Your task to perform on an android device: Go to internet settings Image 0: 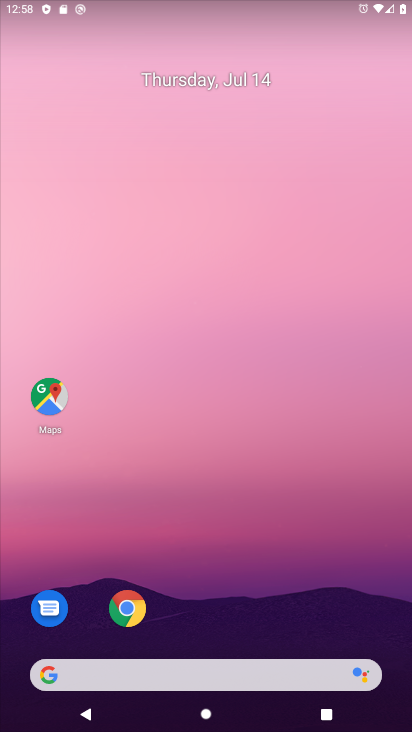
Step 0: drag from (348, 550) to (356, 106)
Your task to perform on an android device: Go to internet settings Image 1: 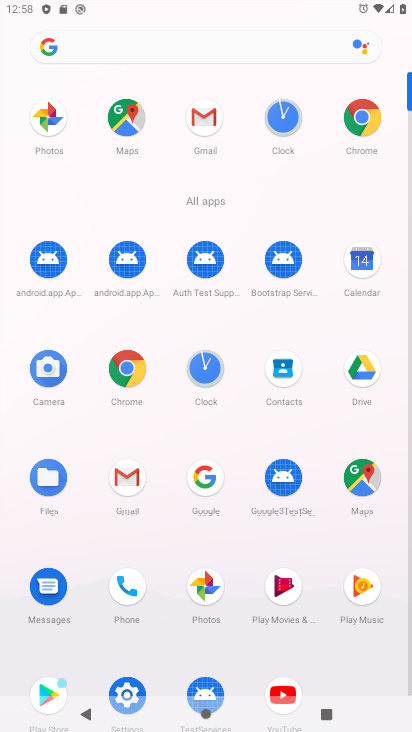
Step 1: click (127, 689)
Your task to perform on an android device: Go to internet settings Image 2: 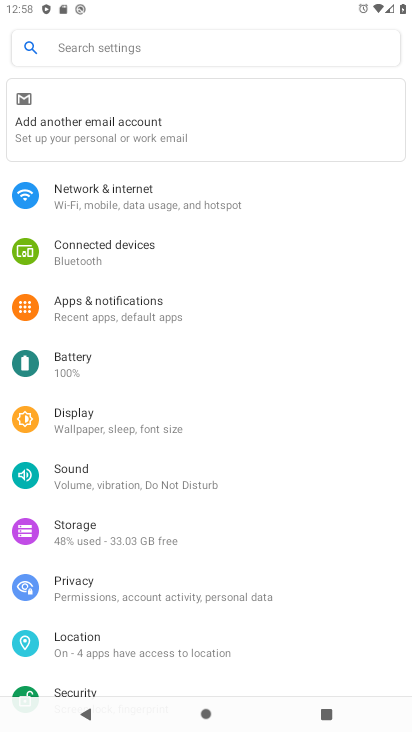
Step 2: click (179, 194)
Your task to perform on an android device: Go to internet settings Image 3: 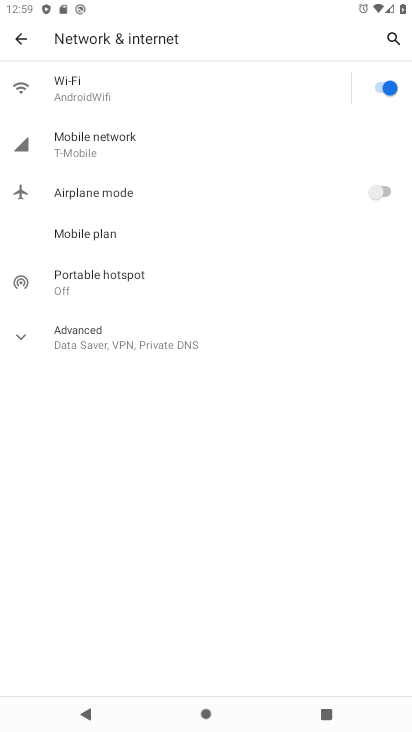
Step 3: task complete